Your task to perform on an android device: uninstall "ZOOM Cloud Meetings" Image 0: 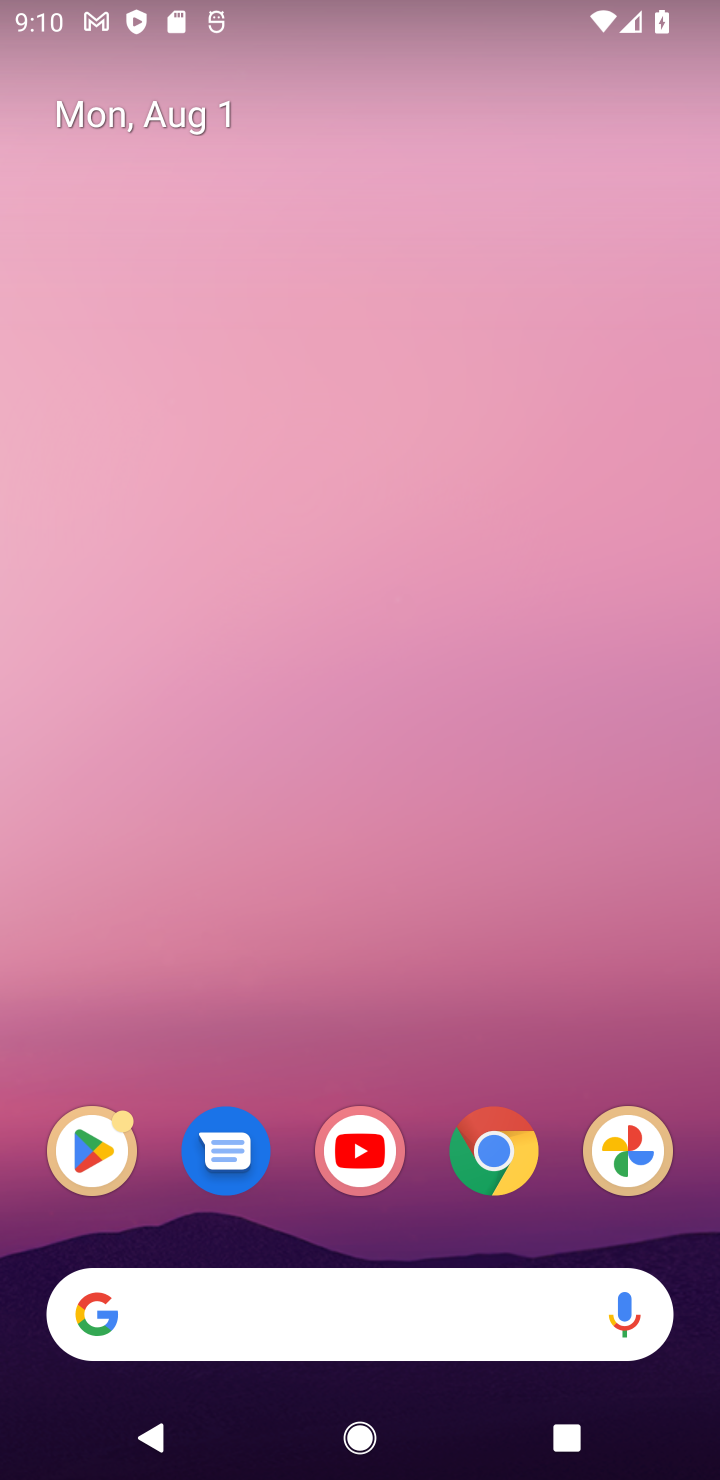
Step 0: click (396, 516)
Your task to perform on an android device: uninstall "ZOOM Cloud Meetings" Image 1: 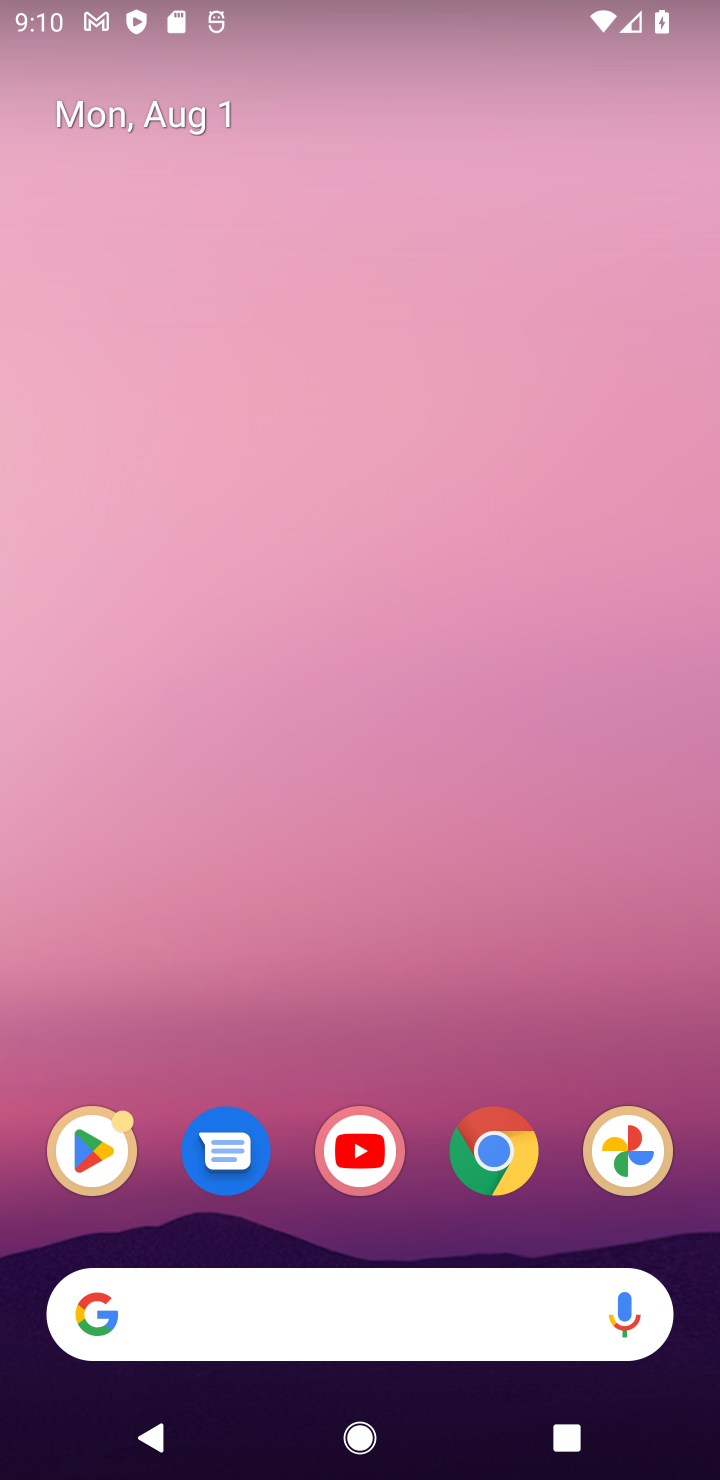
Step 1: drag from (465, 1368) to (470, 954)
Your task to perform on an android device: uninstall "ZOOM Cloud Meetings" Image 2: 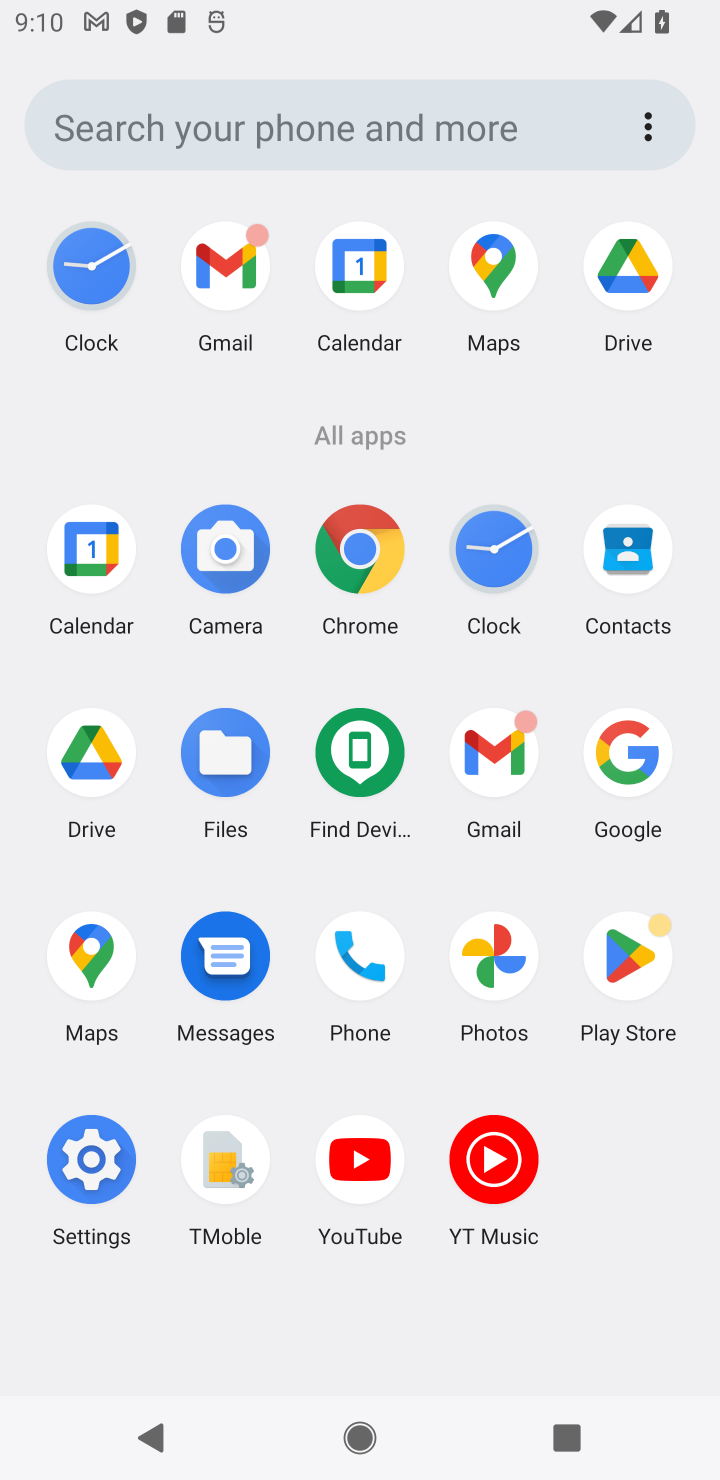
Step 2: click (629, 949)
Your task to perform on an android device: uninstall "ZOOM Cloud Meetings" Image 3: 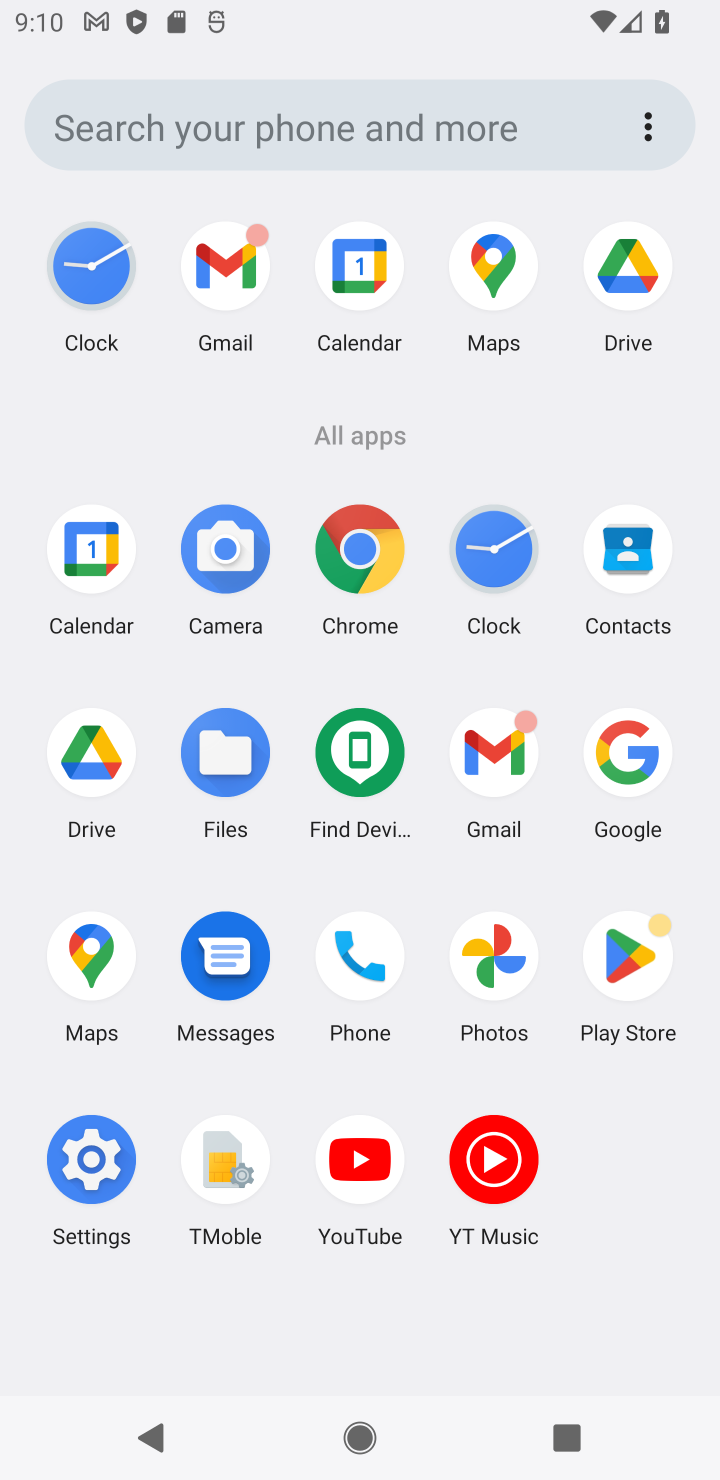
Step 3: click (631, 963)
Your task to perform on an android device: uninstall "ZOOM Cloud Meetings" Image 4: 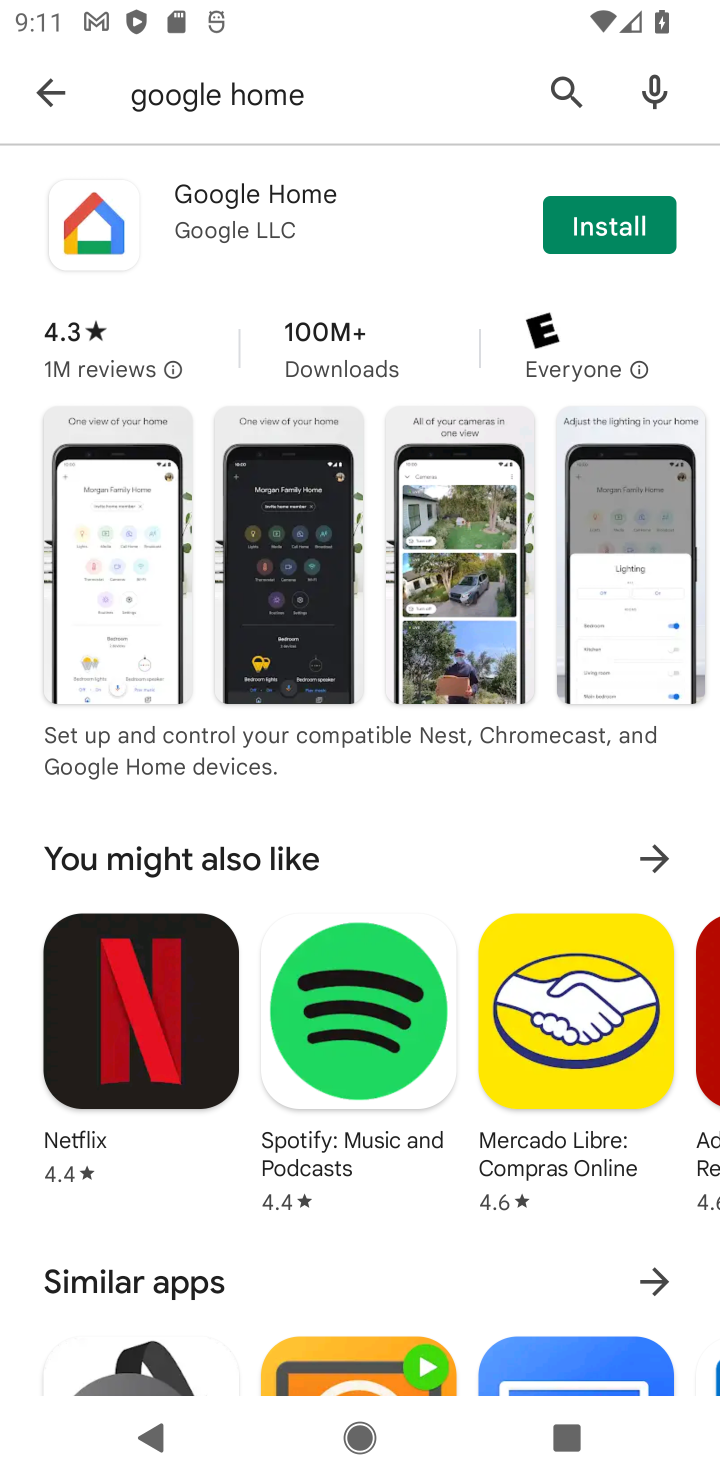
Step 4: task complete